Your task to perform on an android device: When is my next meeting? Image 0: 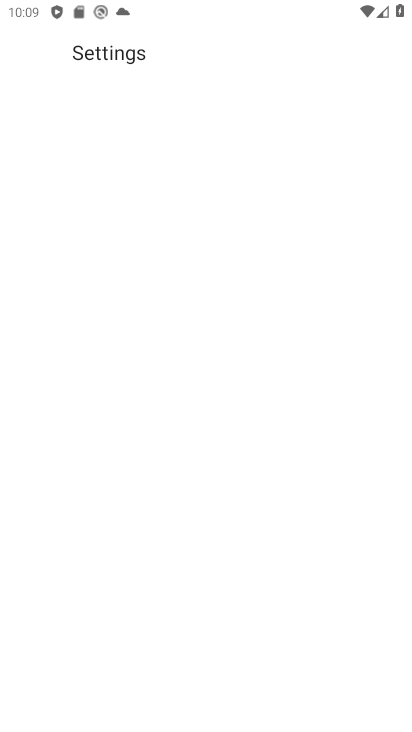
Step 0: drag from (215, 633) to (233, 65)
Your task to perform on an android device: When is my next meeting? Image 1: 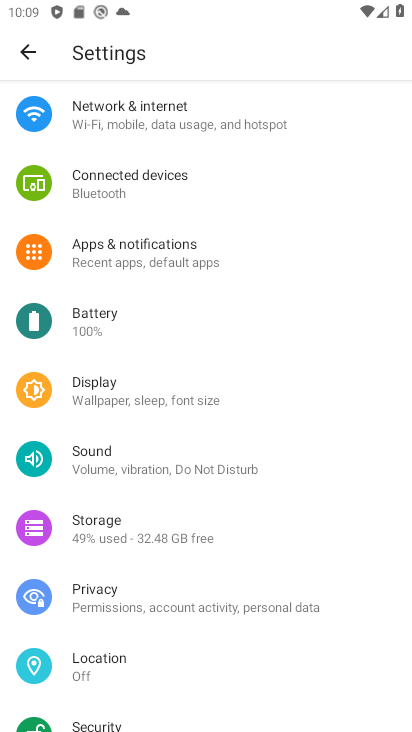
Step 1: press home button
Your task to perform on an android device: When is my next meeting? Image 2: 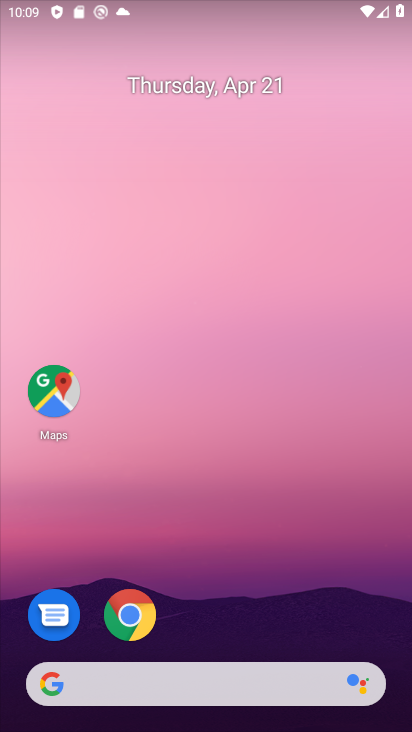
Step 2: drag from (213, 642) to (247, 64)
Your task to perform on an android device: When is my next meeting? Image 3: 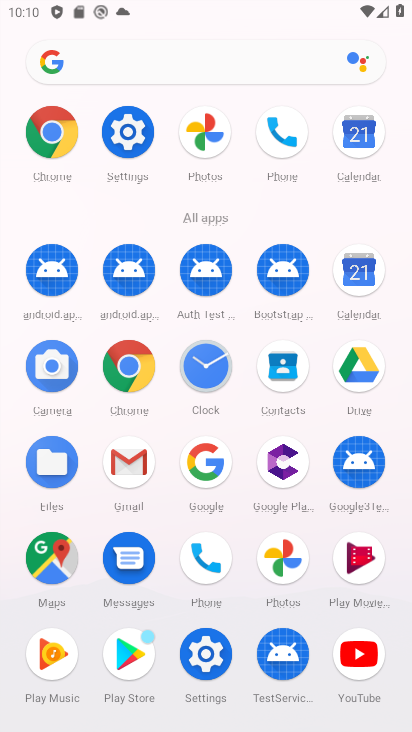
Step 3: click (358, 271)
Your task to perform on an android device: When is my next meeting? Image 4: 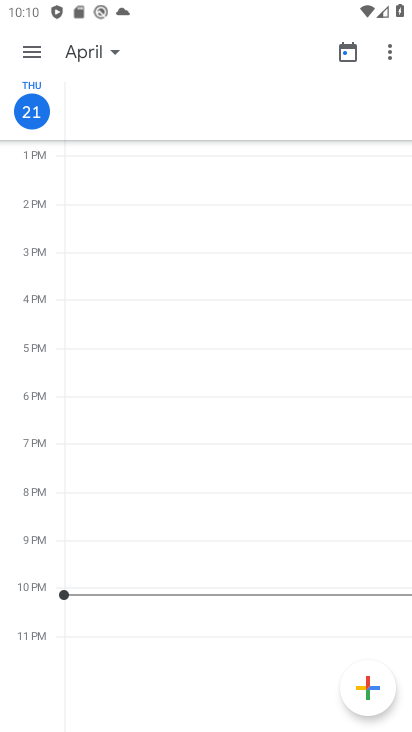
Step 4: drag from (38, 196) to (38, 646)
Your task to perform on an android device: When is my next meeting? Image 5: 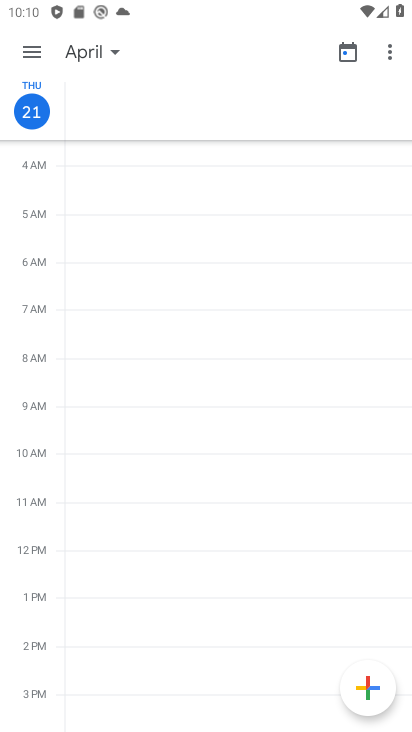
Step 5: click (52, 120)
Your task to perform on an android device: When is my next meeting? Image 6: 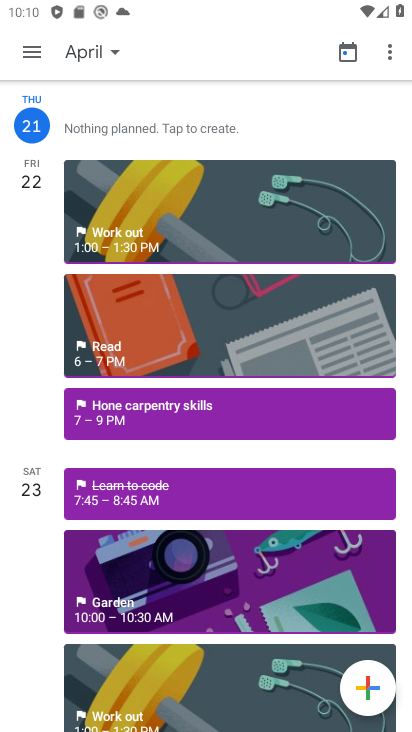
Step 6: task complete